Your task to perform on an android device: toggle translation in the chrome app Image 0: 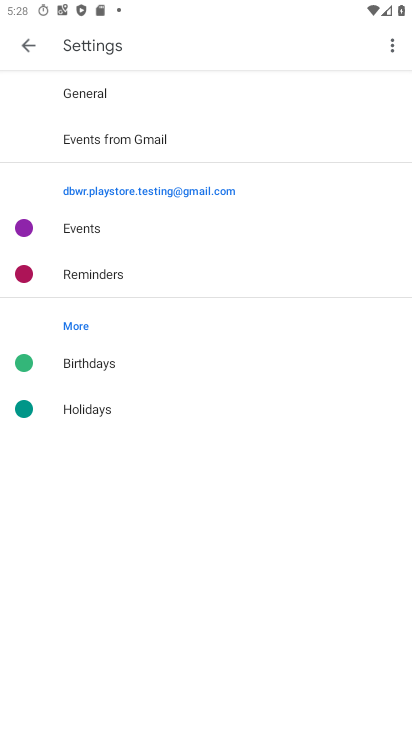
Step 0: press home button
Your task to perform on an android device: toggle translation in the chrome app Image 1: 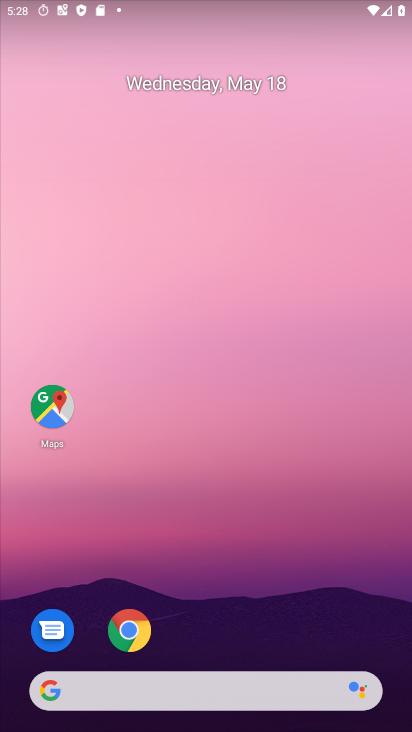
Step 1: click (127, 624)
Your task to perform on an android device: toggle translation in the chrome app Image 2: 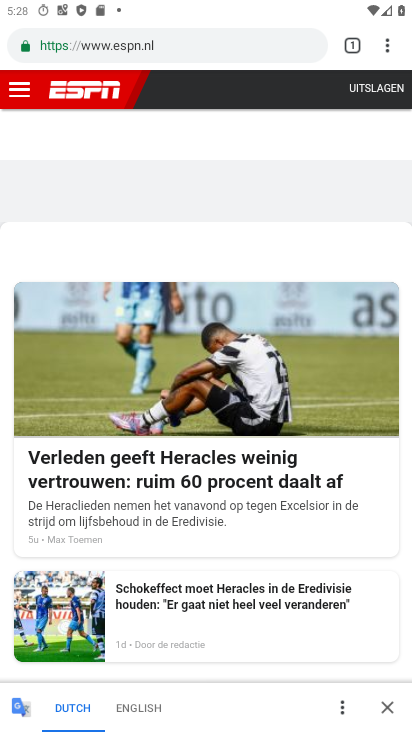
Step 2: click (390, 41)
Your task to perform on an android device: toggle translation in the chrome app Image 3: 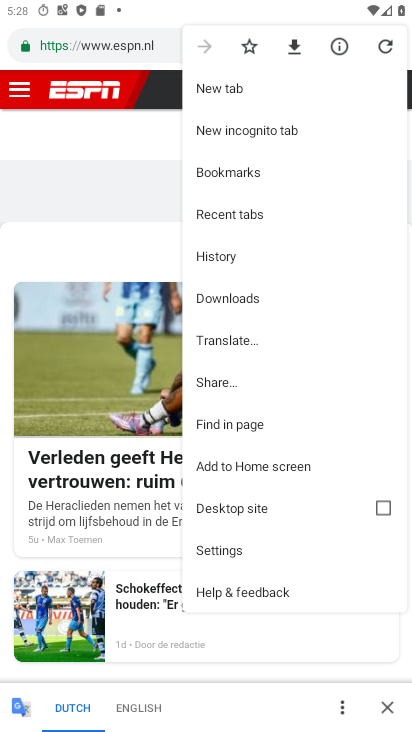
Step 3: click (214, 555)
Your task to perform on an android device: toggle translation in the chrome app Image 4: 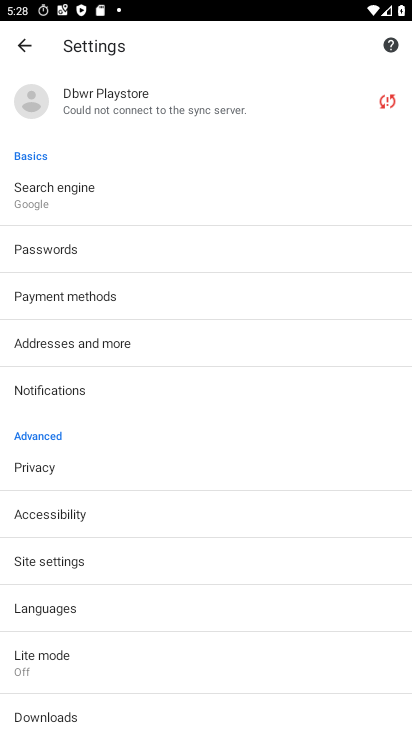
Step 4: drag from (70, 693) to (77, 249)
Your task to perform on an android device: toggle translation in the chrome app Image 5: 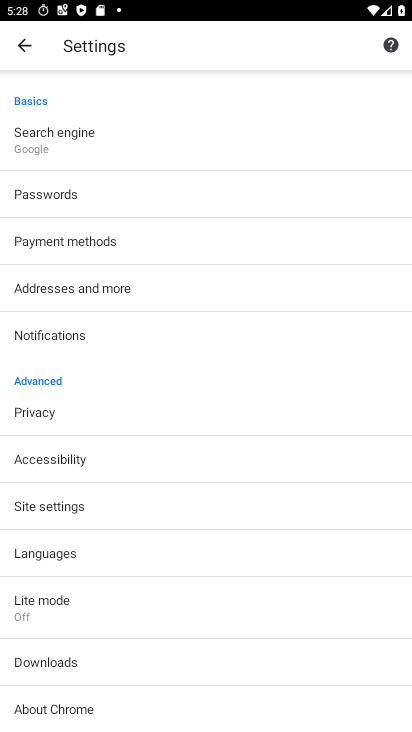
Step 5: click (30, 559)
Your task to perform on an android device: toggle translation in the chrome app Image 6: 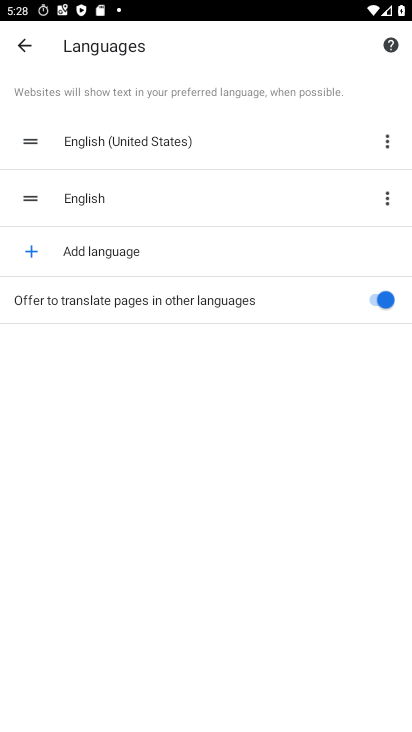
Step 6: click (376, 295)
Your task to perform on an android device: toggle translation in the chrome app Image 7: 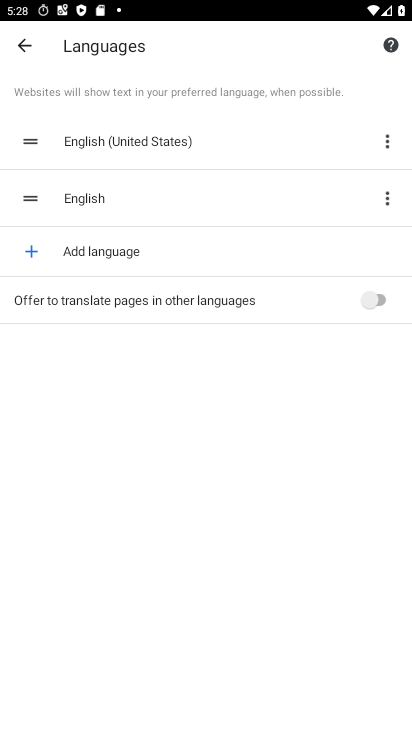
Step 7: task complete